Your task to perform on an android device: set the timer Image 0: 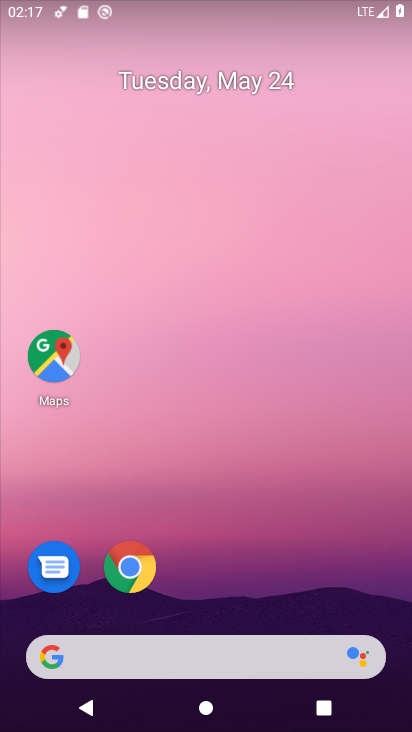
Step 0: drag from (215, 564) to (283, 266)
Your task to perform on an android device: set the timer Image 1: 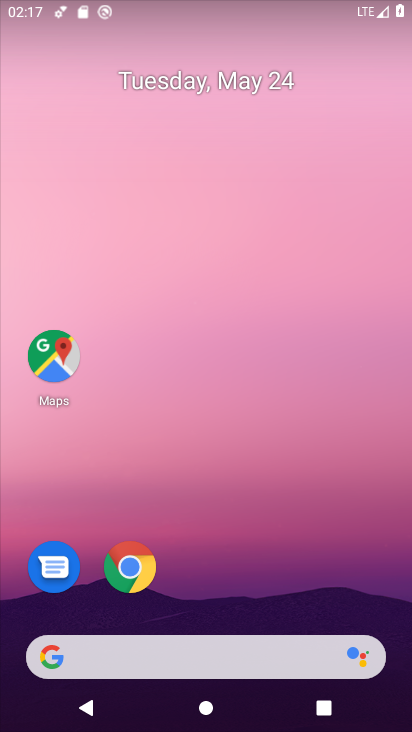
Step 1: drag from (214, 604) to (308, 137)
Your task to perform on an android device: set the timer Image 2: 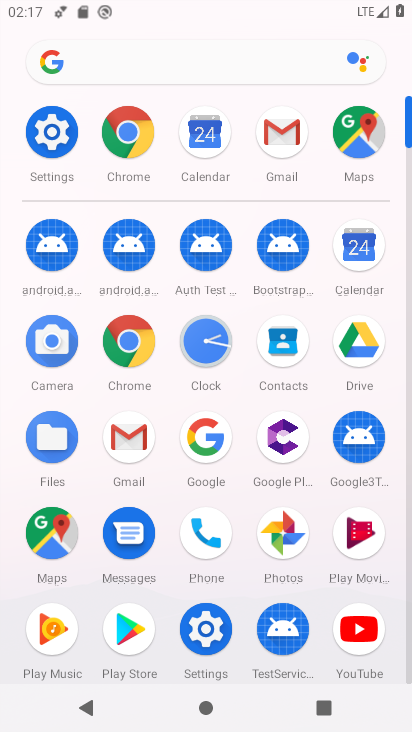
Step 2: click (198, 352)
Your task to perform on an android device: set the timer Image 3: 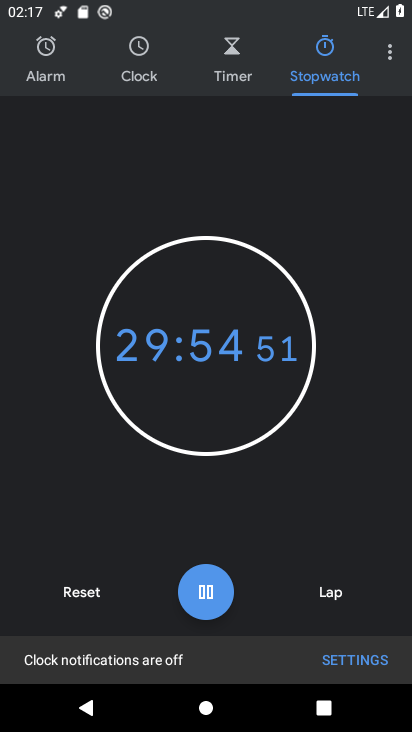
Step 3: click (81, 597)
Your task to perform on an android device: set the timer Image 4: 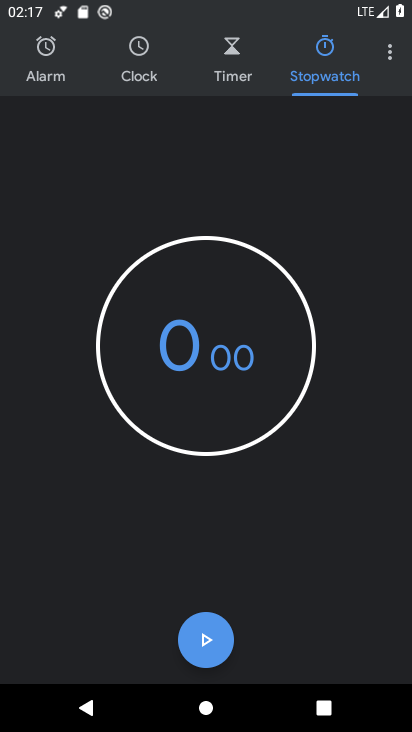
Step 4: click (249, 69)
Your task to perform on an android device: set the timer Image 5: 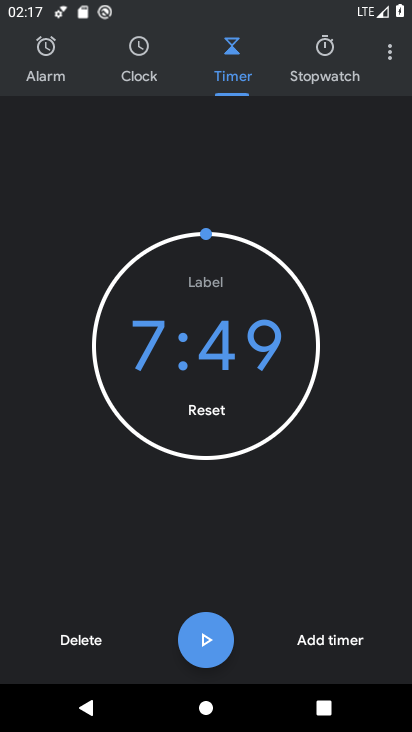
Step 5: click (80, 646)
Your task to perform on an android device: set the timer Image 6: 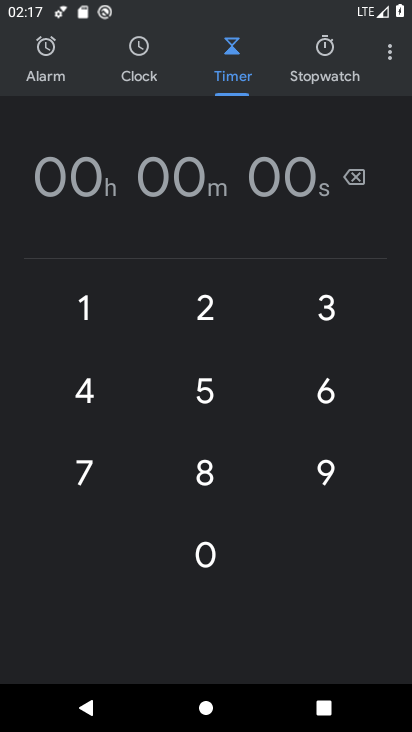
Step 6: click (92, 464)
Your task to perform on an android device: set the timer Image 7: 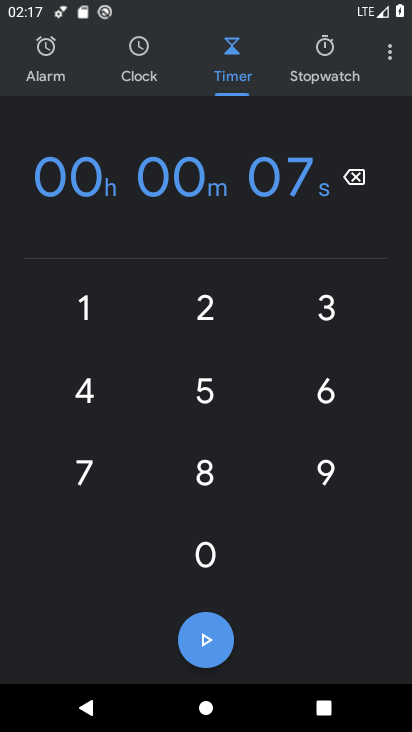
Step 7: click (205, 396)
Your task to perform on an android device: set the timer Image 8: 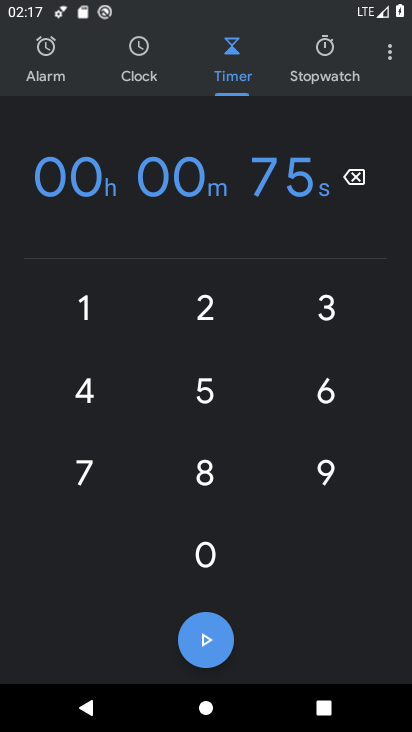
Step 8: click (218, 477)
Your task to perform on an android device: set the timer Image 9: 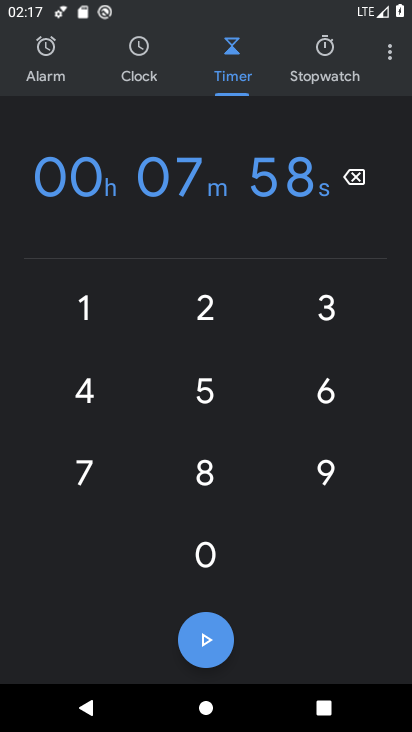
Step 9: click (223, 584)
Your task to perform on an android device: set the timer Image 10: 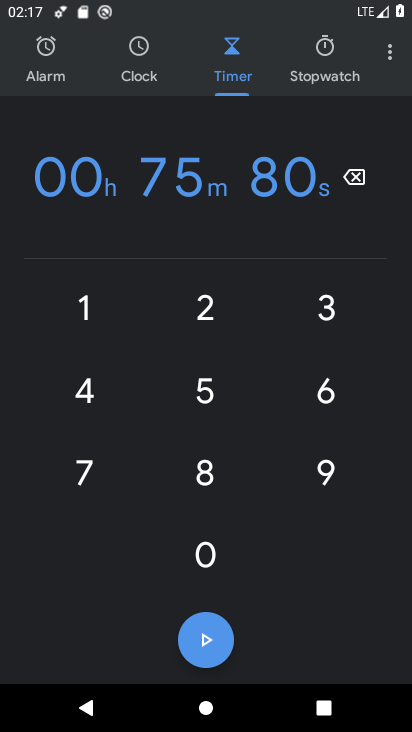
Step 10: click (208, 636)
Your task to perform on an android device: set the timer Image 11: 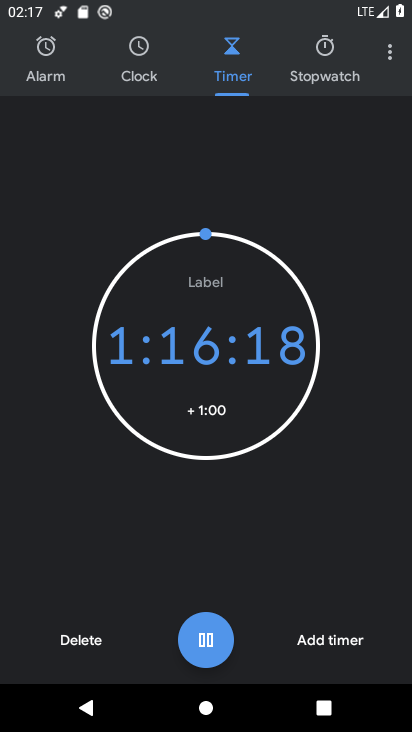
Step 11: task complete